Your task to perform on an android device: clear history in the chrome app Image 0: 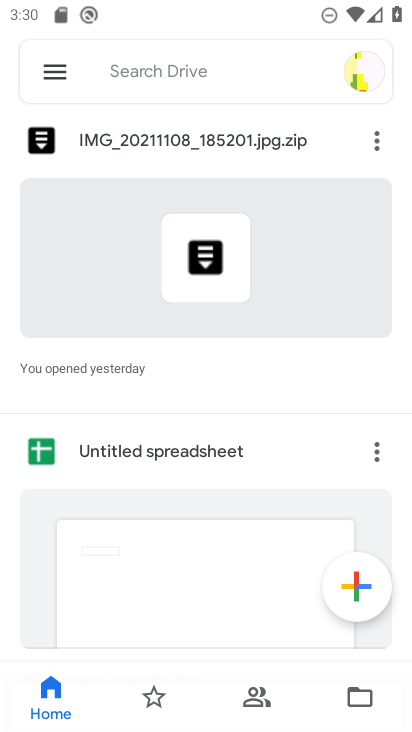
Step 0: press home button
Your task to perform on an android device: clear history in the chrome app Image 1: 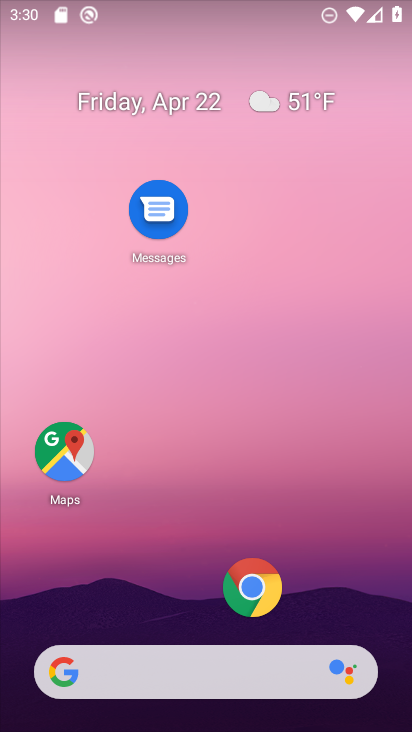
Step 1: click (251, 582)
Your task to perform on an android device: clear history in the chrome app Image 2: 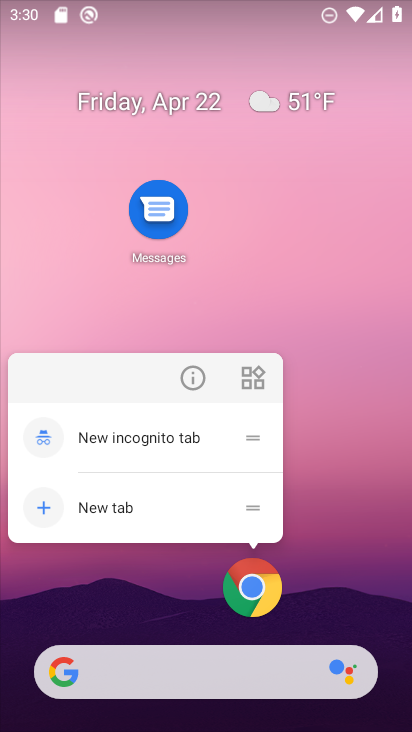
Step 2: click (256, 579)
Your task to perform on an android device: clear history in the chrome app Image 3: 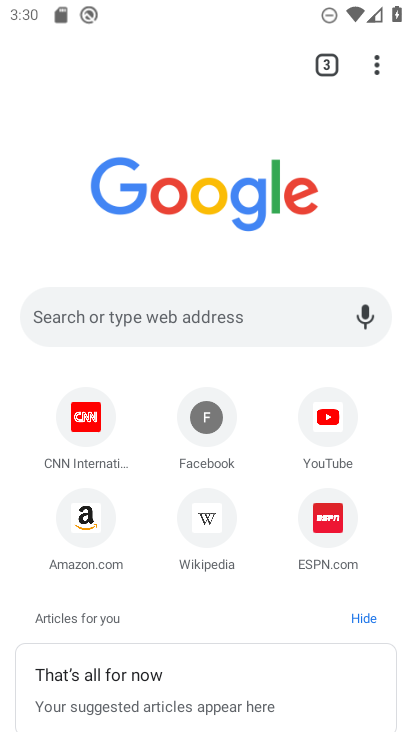
Step 3: drag from (374, 65) to (177, 432)
Your task to perform on an android device: clear history in the chrome app Image 4: 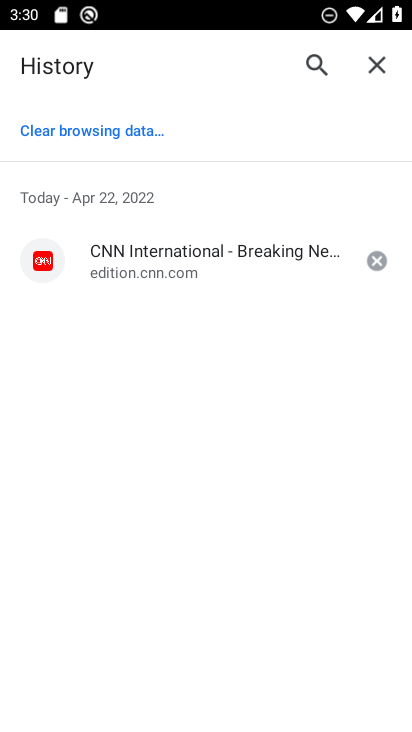
Step 4: click (77, 128)
Your task to perform on an android device: clear history in the chrome app Image 5: 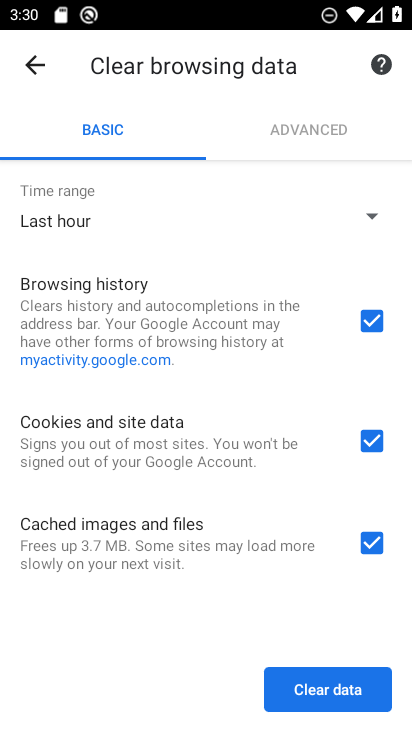
Step 5: click (303, 681)
Your task to perform on an android device: clear history in the chrome app Image 6: 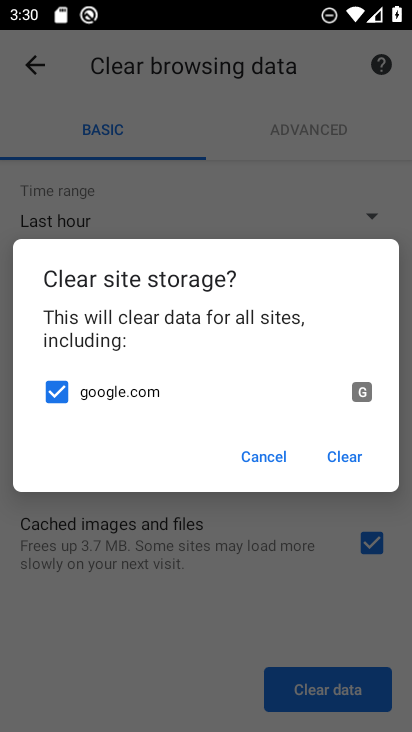
Step 6: click (338, 453)
Your task to perform on an android device: clear history in the chrome app Image 7: 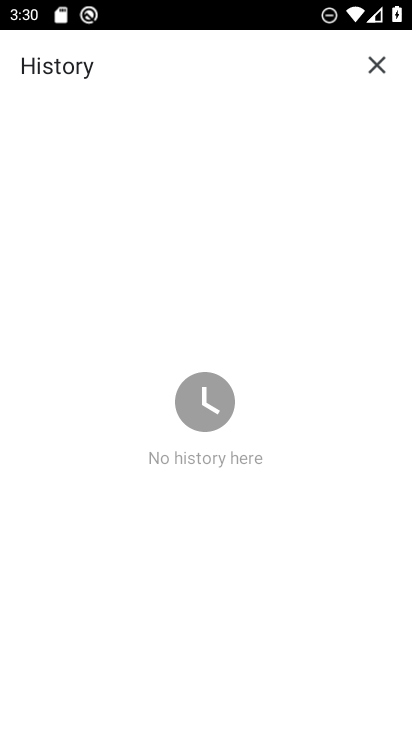
Step 7: task complete